Your task to perform on an android device: What's the weather today? Image 0: 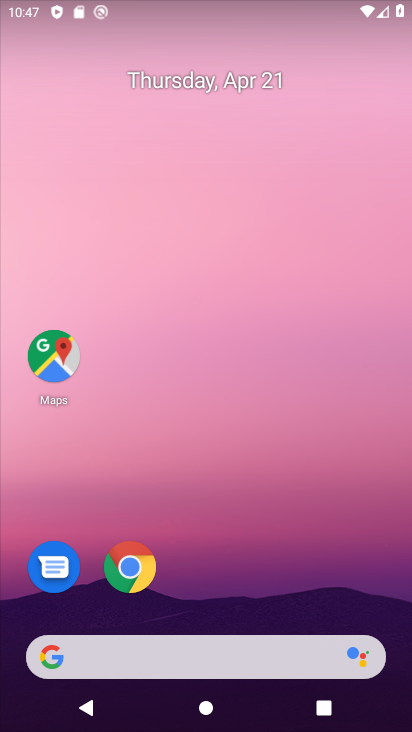
Step 0: click (171, 655)
Your task to perform on an android device: What's the weather today? Image 1: 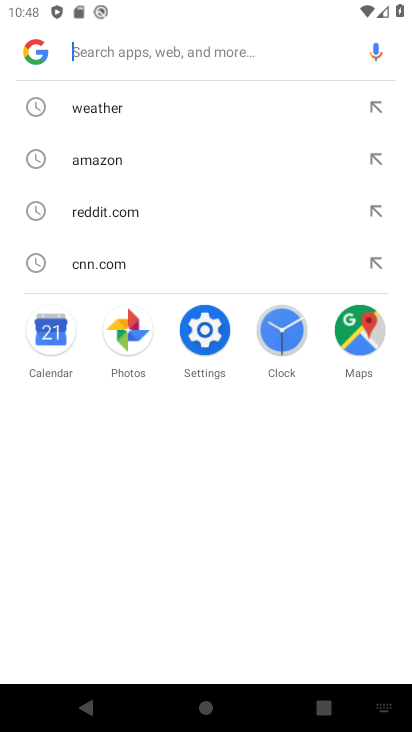
Step 1: click (90, 100)
Your task to perform on an android device: What's the weather today? Image 2: 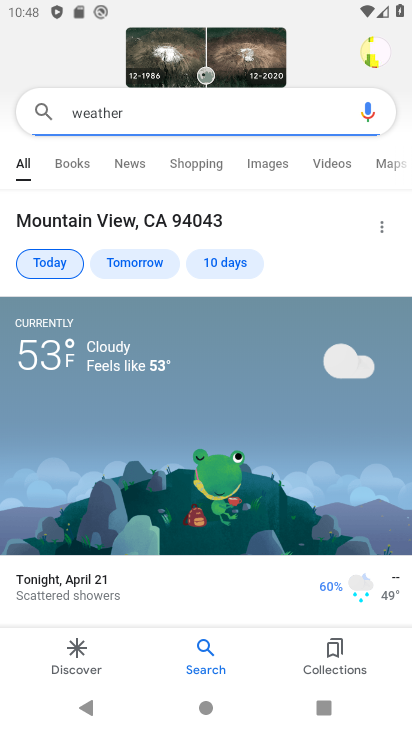
Step 2: task complete